Your task to perform on an android device: delete the emails in spam in the gmail app Image 0: 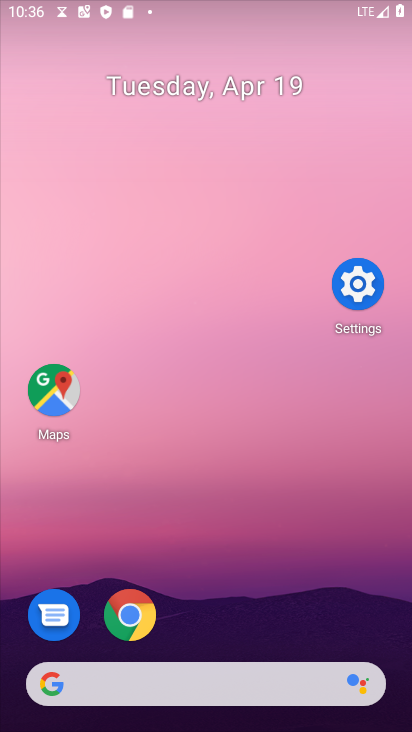
Step 0: drag from (201, 650) to (251, 335)
Your task to perform on an android device: delete the emails in spam in the gmail app Image 1: 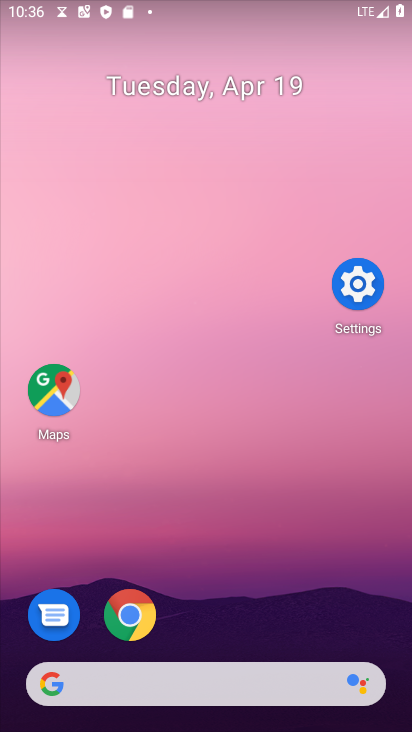
Step 1: drag from (186, 624) to (382, 33)
Your task to perform on an android device: delete the emails in spam in the gmail app Image 2: 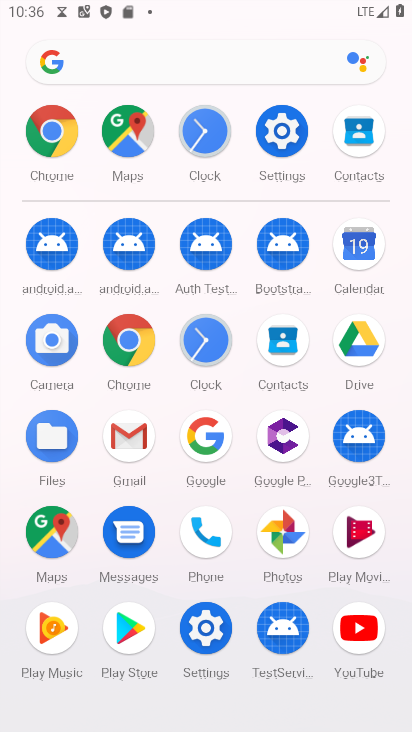
Step 2: click (128, 425)
Your task to perform on an android device: delete the emails in spam in the gmail app Image 3: 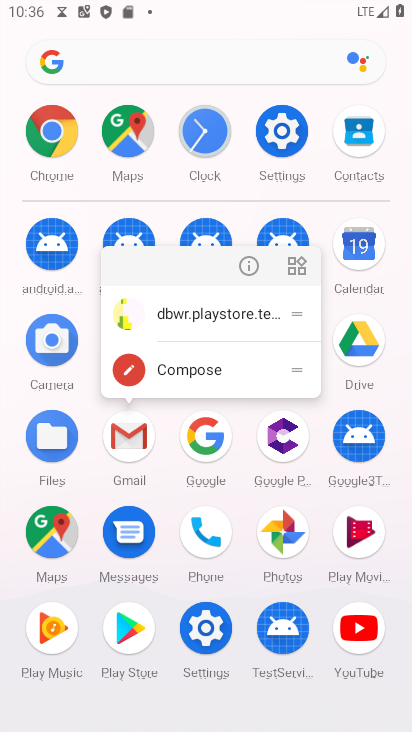
Step 3: click (243, 269)
Your task to perform on an android device: delete the emails in spam in the gmail app Image 4: 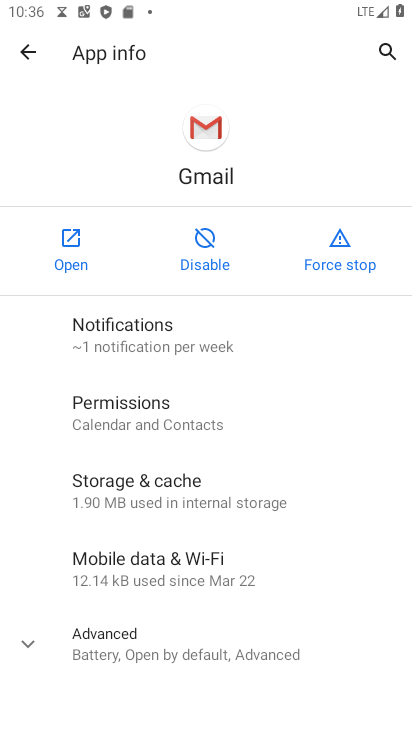
Step 4: click (64, 249)
Your task to perform on an android device: delete the emails in spam in the gmail app Image 5: 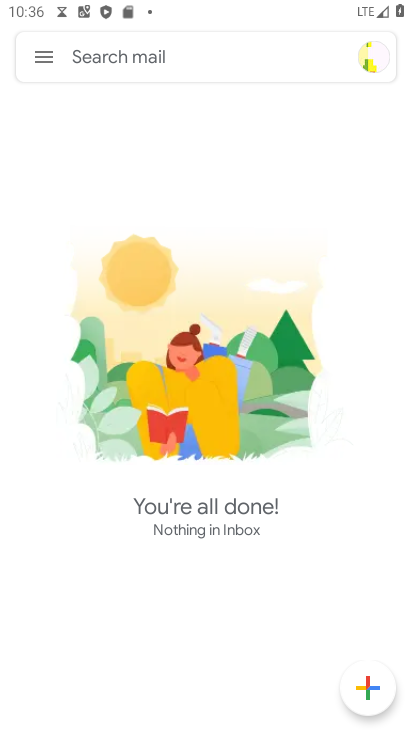
Step 5: drag from (266, 490) to (264, 216)
Your task to perform on an android device: delete the emails in spam in the gmail app Image 6: 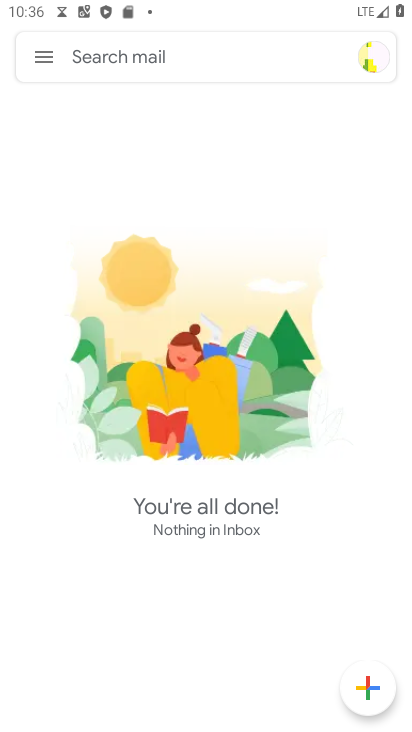
Step 6: drag from (114, 306) to (365, 344)
Your task to perform on an android device: delete the emails in spam in the gmail app Image 7: 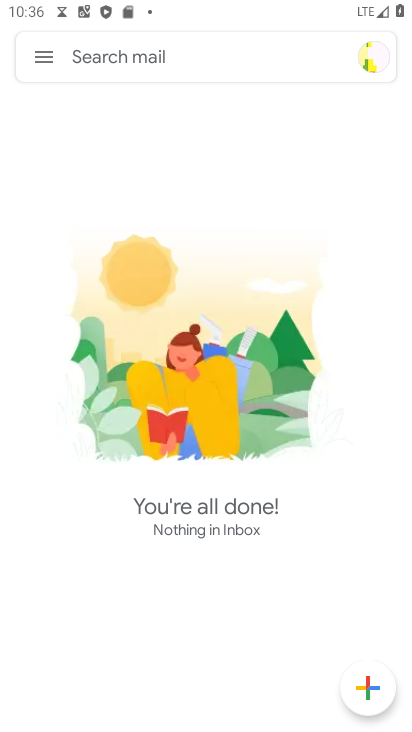
Step 7: click (39, 51)
Your task to perform on an android device: delete the emails in spam in the gmail app Image 8: 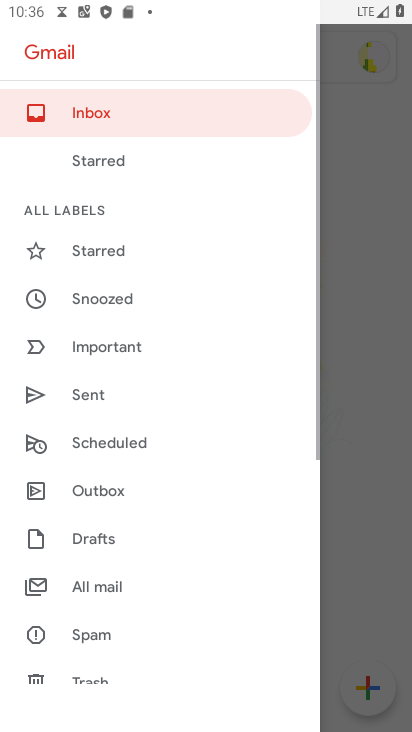
Step 8: drag from (133, 673) to (212, 190)
Your task to perform on an android device: delete the emails in spam in the gmail app Image 9: 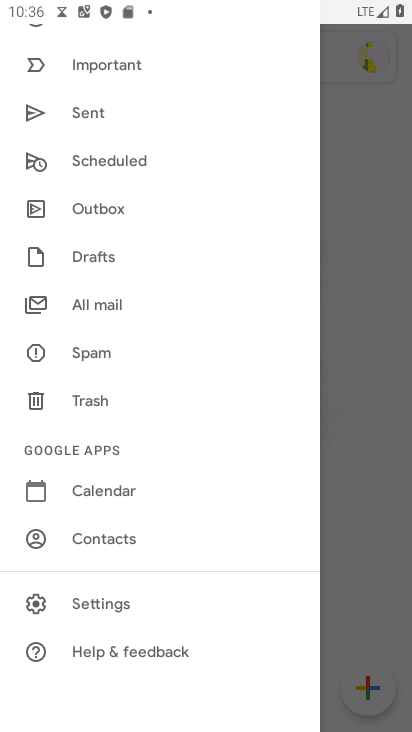
Step 9: click (93, 357)
Your task to perform on an android device: delete the emails in spam in the gmail app Image 10: 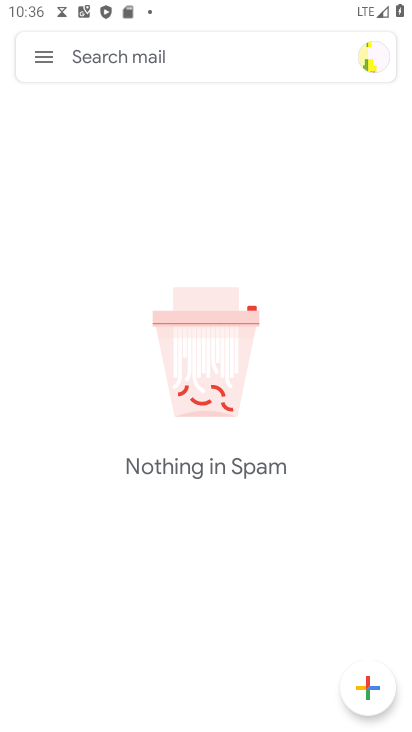
Step 10: task complete